Your task to perform on an android device: clear all cookies in the chrome app Image 0: 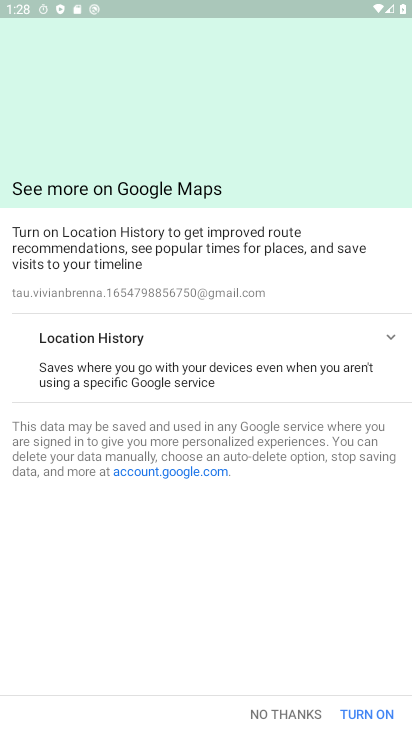
Step 0: press home button
Your task to perform on an android device: clear all cookies in the chrome app Image 1: 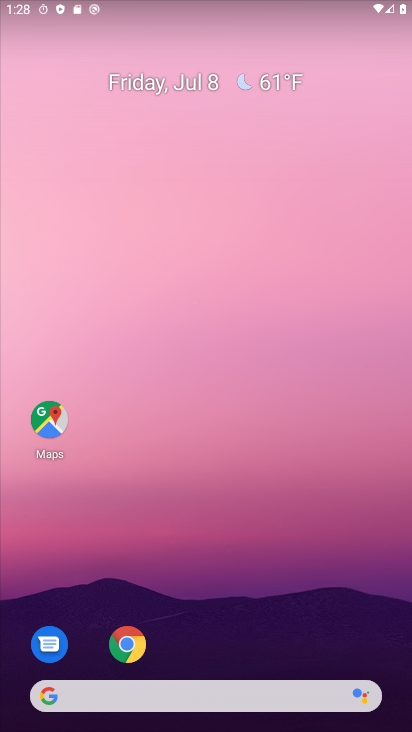
Step 1: click (126, 643)
Your task to perform on an android device: clear all cookies in the chrome app Image 2: 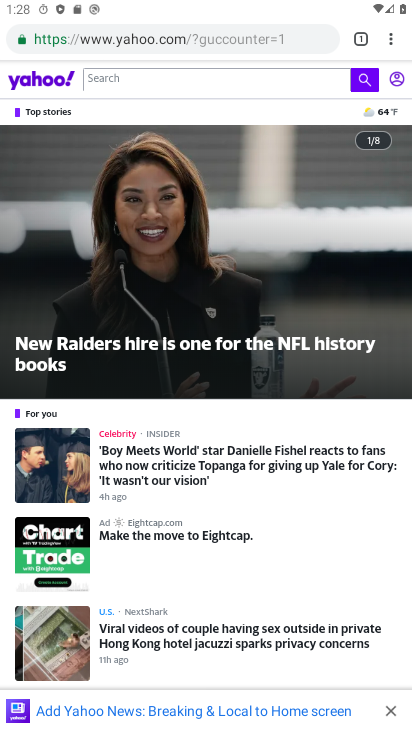
Step 2: click (393, 37)
Your task to perform on an android device: clear all cookies in the chrome app Image 3: 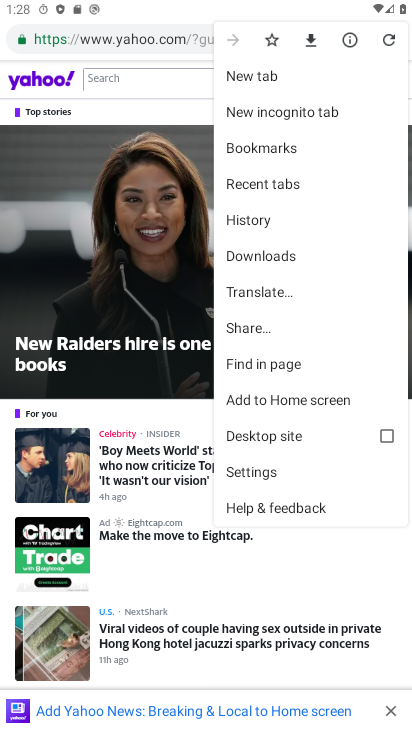
Step 3: click (249, 235)
Your task to perform on an android device: clear all cookies in the chrome app Image 4: 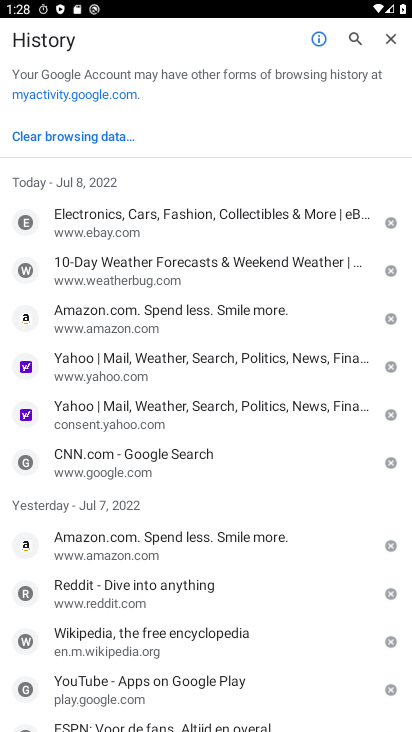
Step 4: click (103, 135)
Your task to perform on an android device: clear all cookies in the chrome app Image 5: 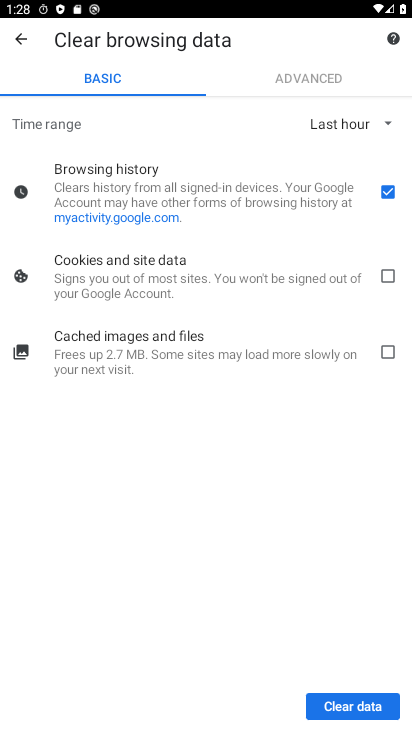
Step 5: click (385, 194)
Your task to perform on an android device: clear all cookies in the chrome app Image 6: 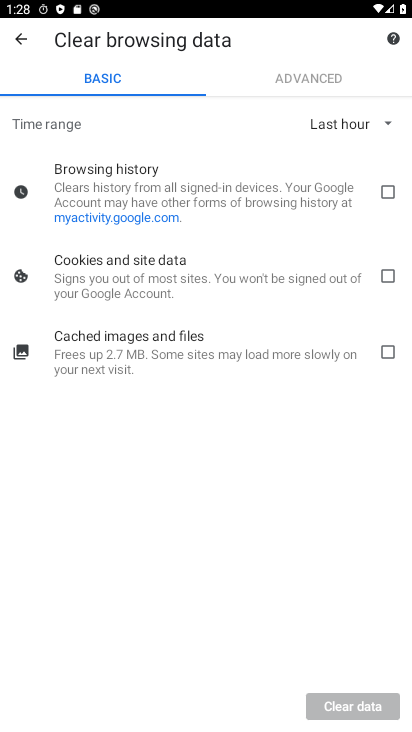
Step 6: click (389, 278)
Your task to perform on an android device: clear all cookies in the chrome app Image 7: 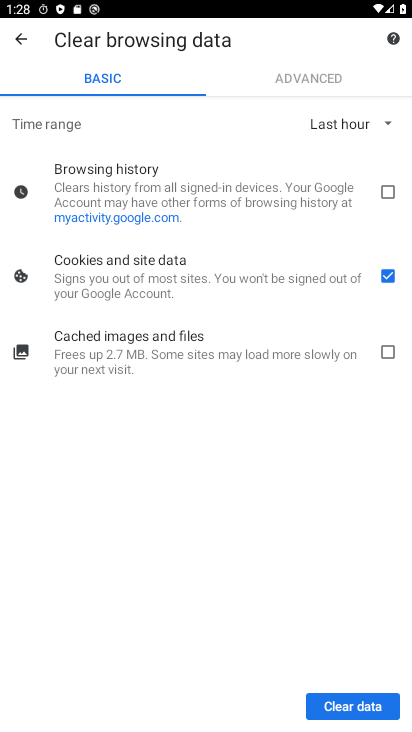
Step 7: click (354, 701)
Your task to perform on an android device: clear all cookies in the chrome app Image 8: 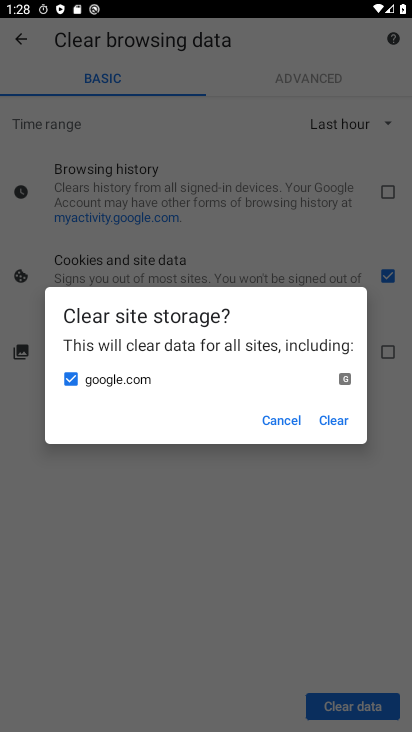
Step 8: click (335, 413)
Your task to perform on an android device: clear all cookies in the chrome app Image 9: 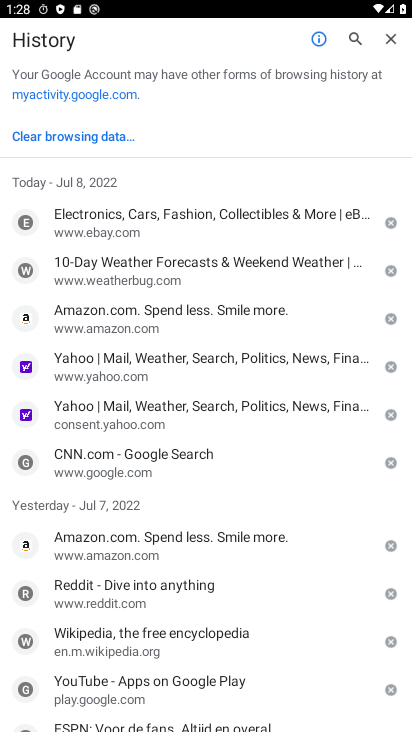
Step 9: task complete